Your task to perform on an android device: Open CNN.com Image 0: 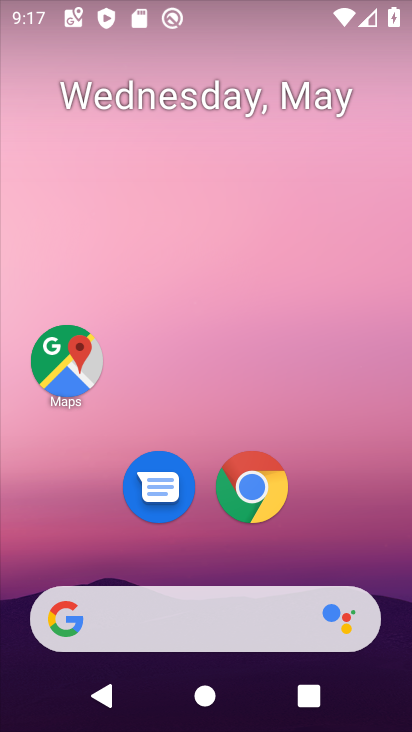
Step 0: click (257, 483)
Your task to perform on an android device: Open CNN.com Image 1: 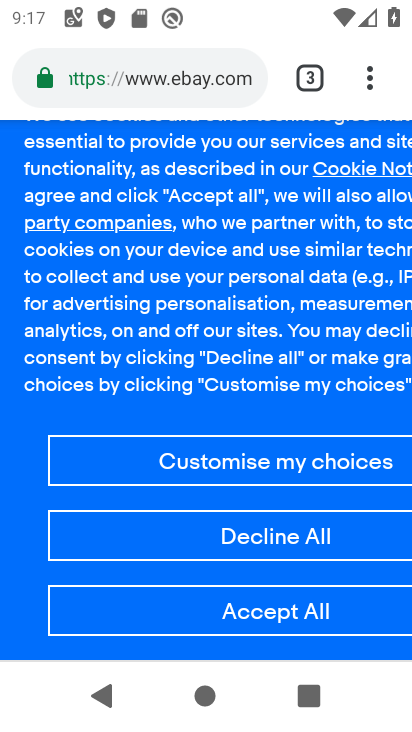
Step 1: click (364, 75)
Your task to perform on an android device: Open CNN.com Image 2: 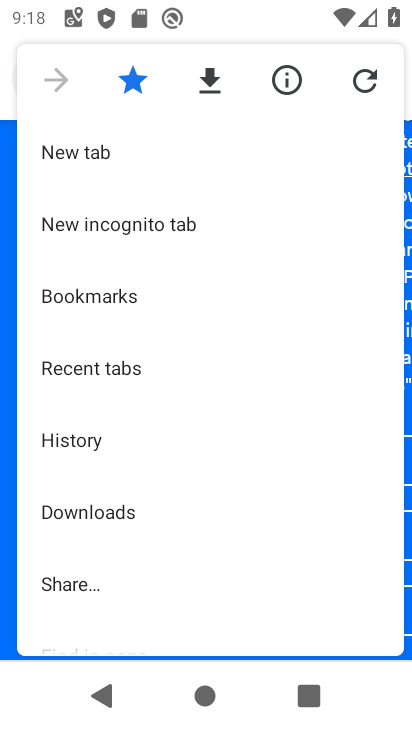
Step 2: click (83, 148)
Your task to perform on an android device: Open CNN.com Image 3: 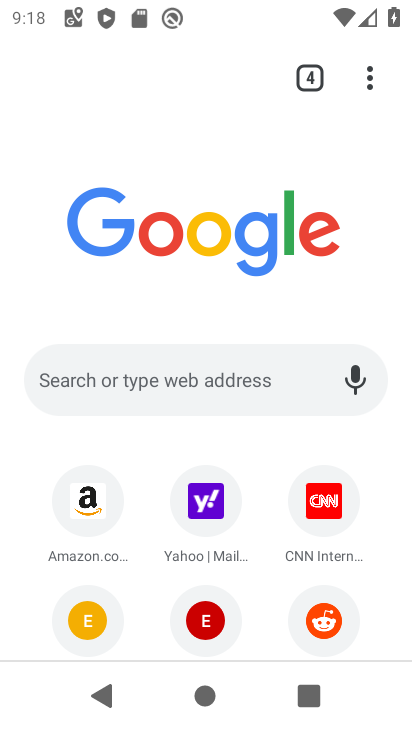
Step 3: click (173, 365)
Your task to perform on an android device: Open CNN.com Image 4: 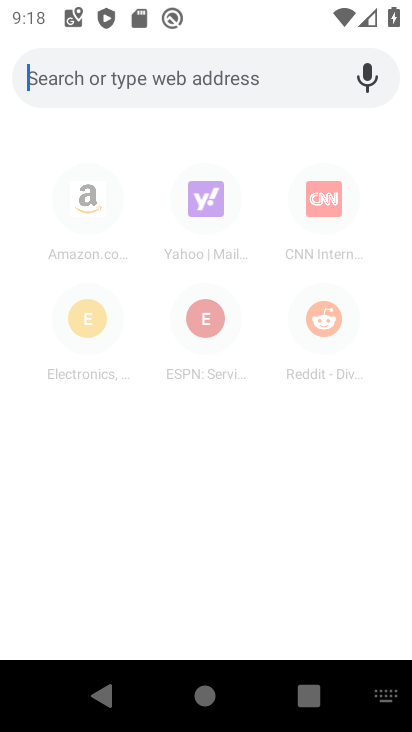
Step 4: type "cnn.com"
Your task to perform on an android device: Open CNN.com Image 5: 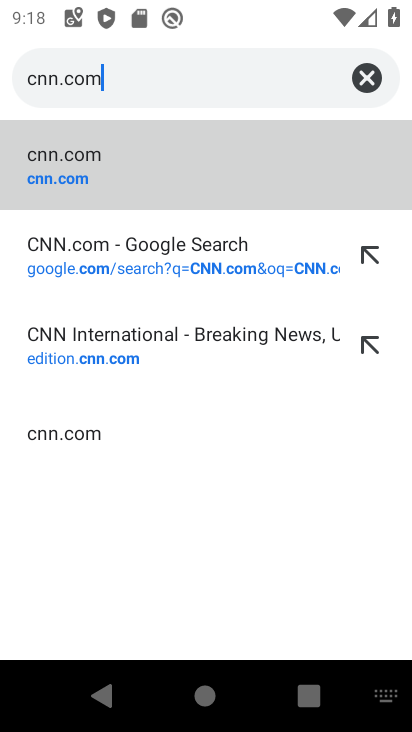
Step 5: click (73, 161)
Your task to perform on an android device: Open CNN.com Image 6: 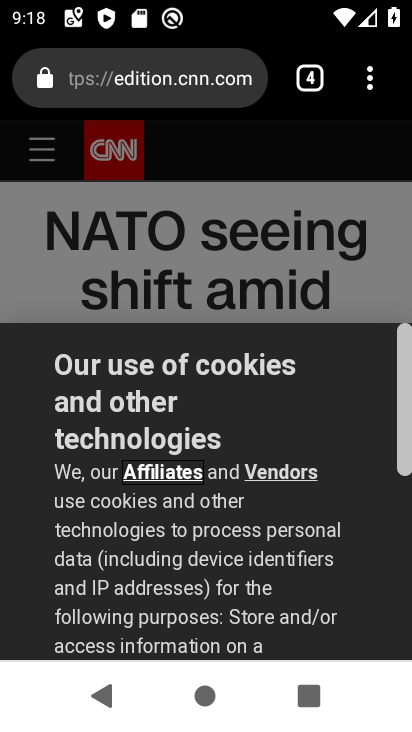
Step 6: task complete